Your task to perform on an android device: Do I have any events this weekend? Image 0: 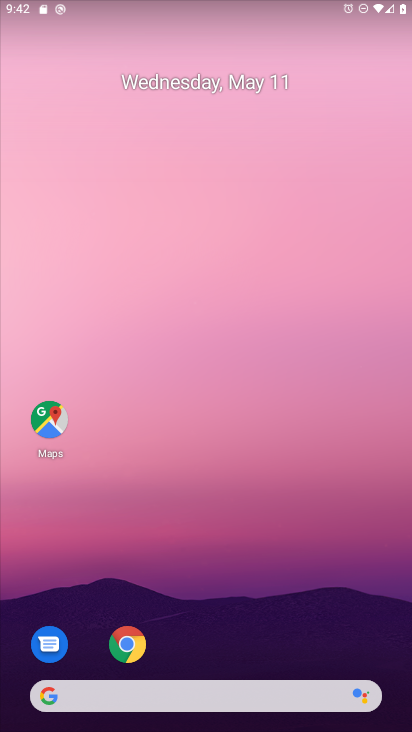
Step 0: drag from (244, 557) to (208, 112)
Your task to perform on an android device: Do I have any events this weekend? Image 1: 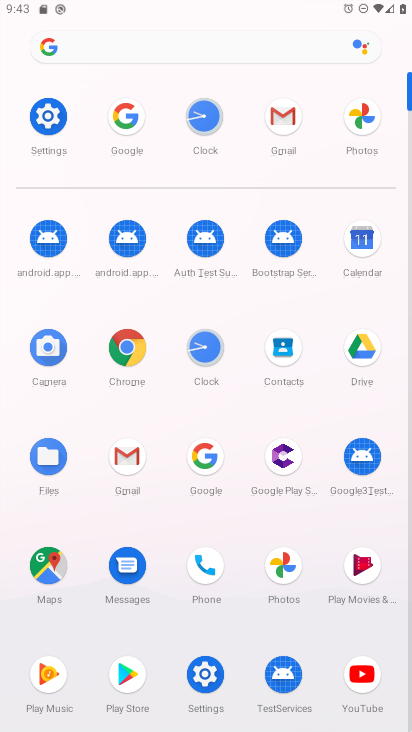
Step 1: click (367, 241)
Your task to perform on an android device: Do I have any events this weekend? Image 2: 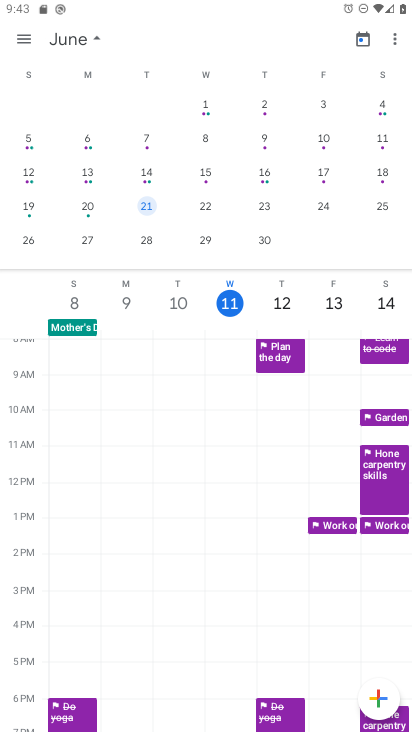
Step 2: drag from (28, 151) to (388, 235)
Your task to perform on an android device: Do I have any events this weekend? Image 3: 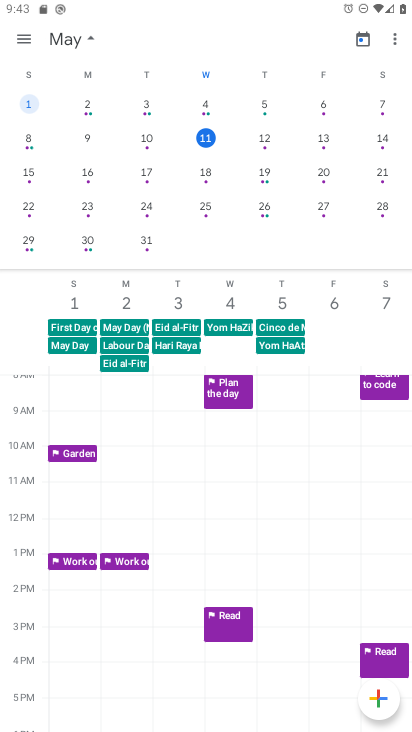
Step 3: drag from (288, 552) to (233, 283)
Your task to perform on an android device: Do I have any events this weekend? Image 4: 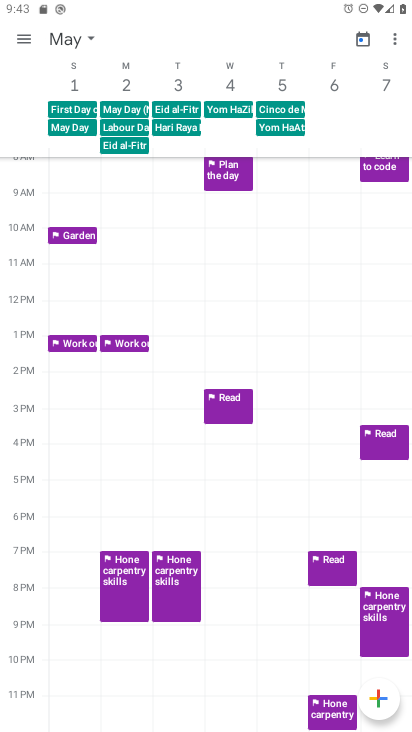
Step 4: drag from (250, 234) to (261, 727)
Your task to perform on an android device: Do I have any events this weekend? Image 5: 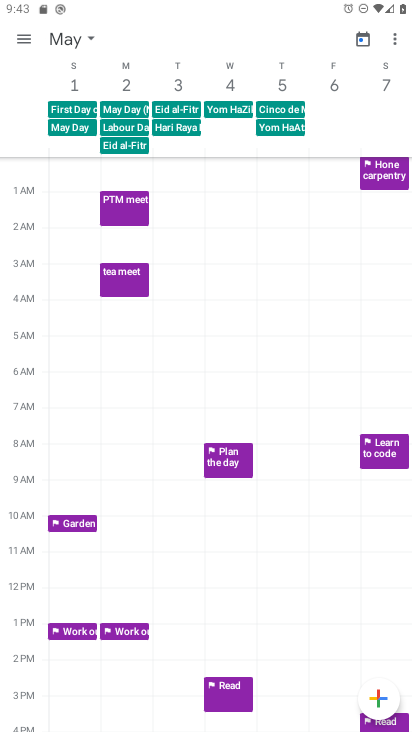
Step 5: click (102, 42)
Your task to perform on an android device: Do I have any events this weekend? Image 6: 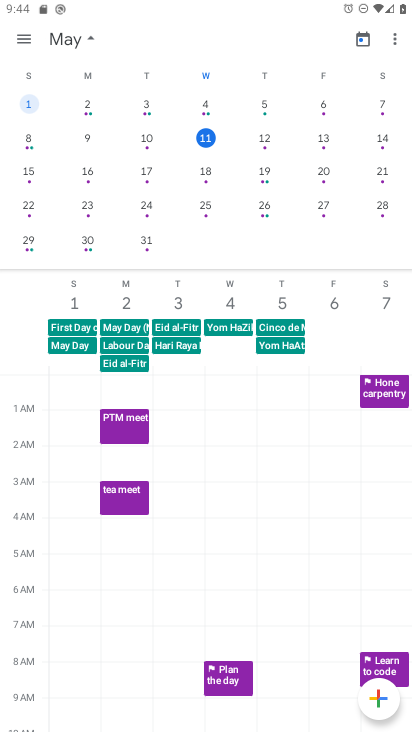
Step 6: task complete